Your task to perform on an android device: add a label to a message in the gmail app Image 0: 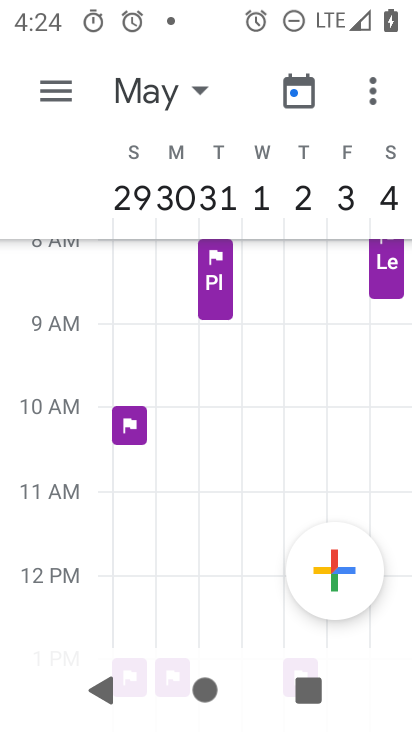
Step 0: press home button
Your task to perform on an android device: add a label to a message in the gmail app Image 1: 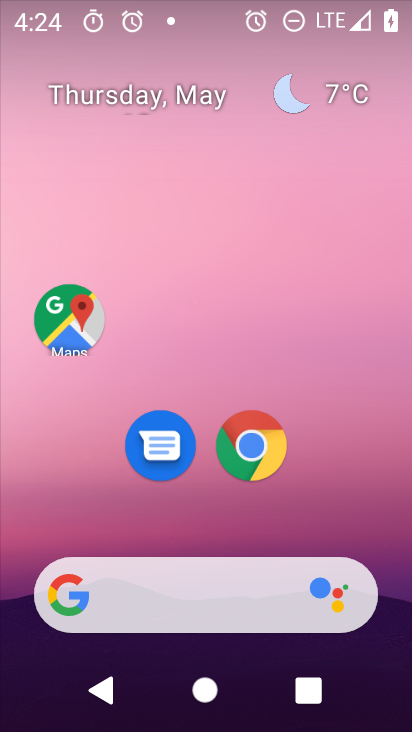
Step 1: drag from (365, 534) to (391, 5)
Your task to perform on an android device: add a label to a message in the gmail app Image 2: 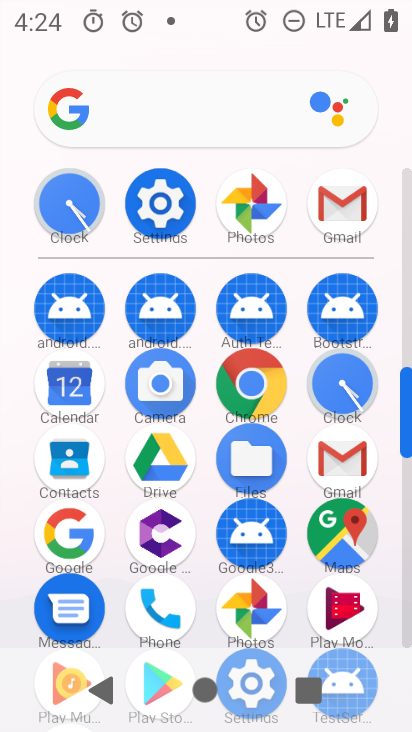
Step 2: click (344, 206)
Your task to perform on an android device: add a label to a message in the gmail app Image 3: 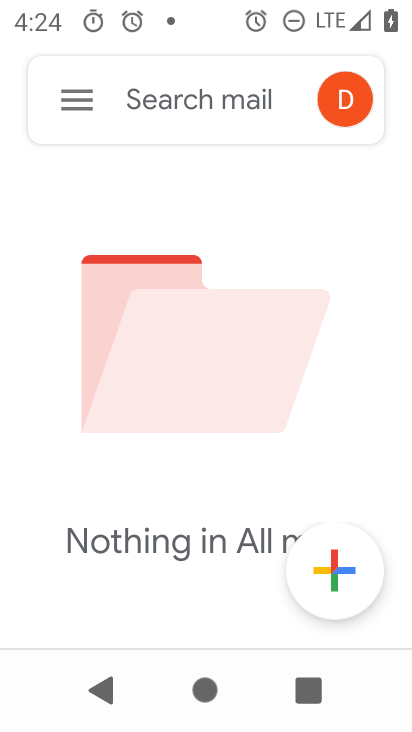
Step 3: task complete